Your task to perform on an android device: Check the weather Image 0: 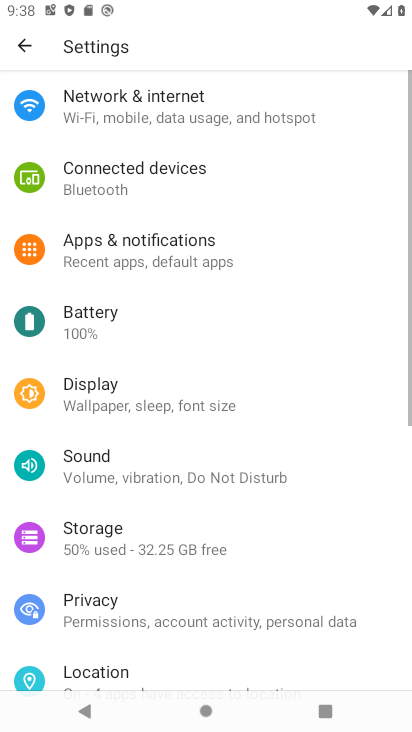
Step 0: press home button
Your task to perform on an android device: Check the weather Image 1: 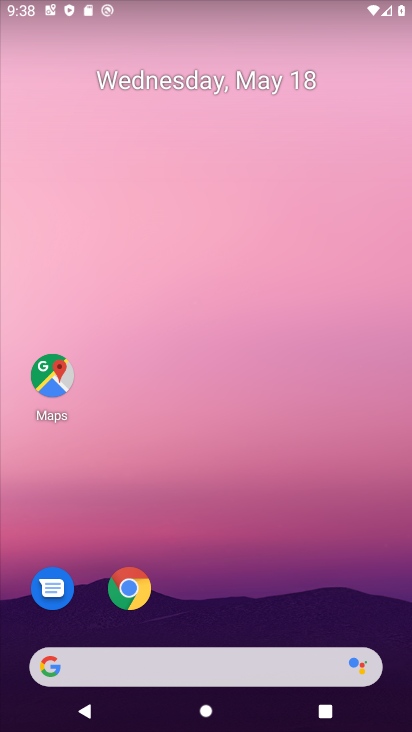
Step 1: drag from (249, 678) to (300, 158)
Your task to perform on an android device: Check the weather Image 2: 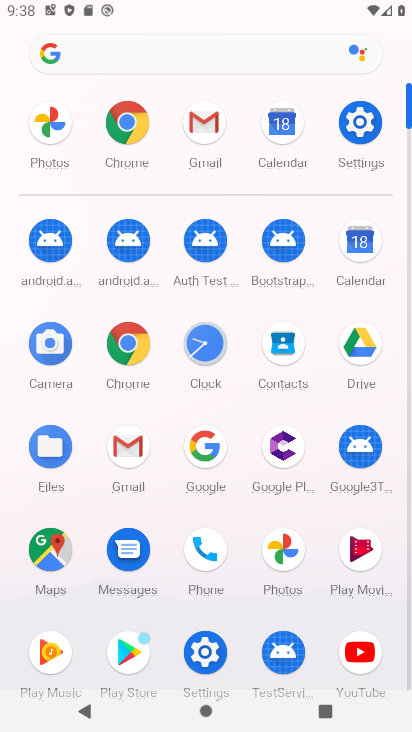
Step 2: click (356, 142)
Your task to perform on an android device: Check the weather Image 3: 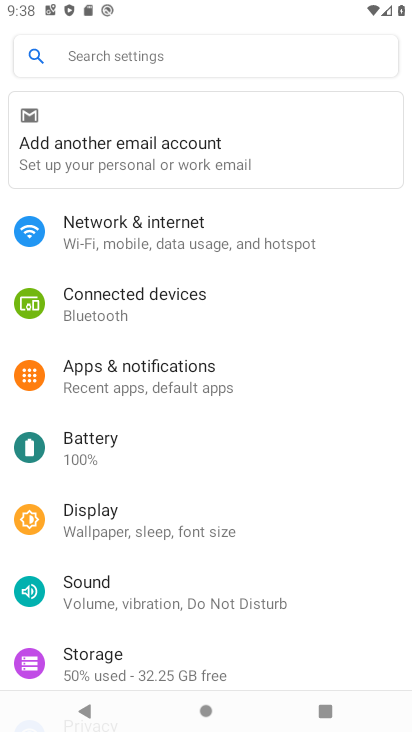
Step 3: click (154, 59)
Your task to perform on an android device: Check the weather Image 4: 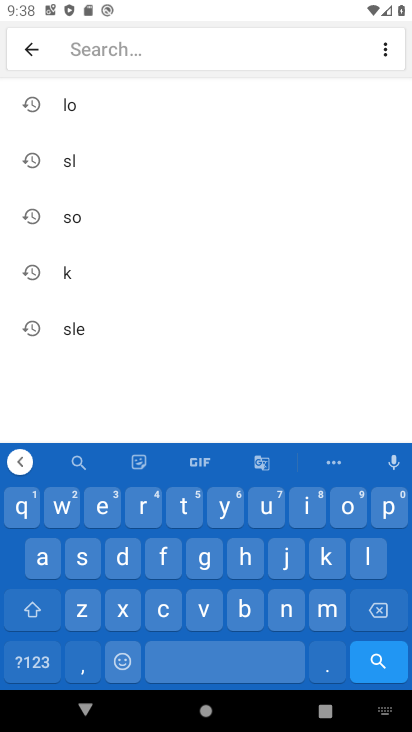
Step 4: press home button
Your task to perform on an android device: Check the weather Image 5: 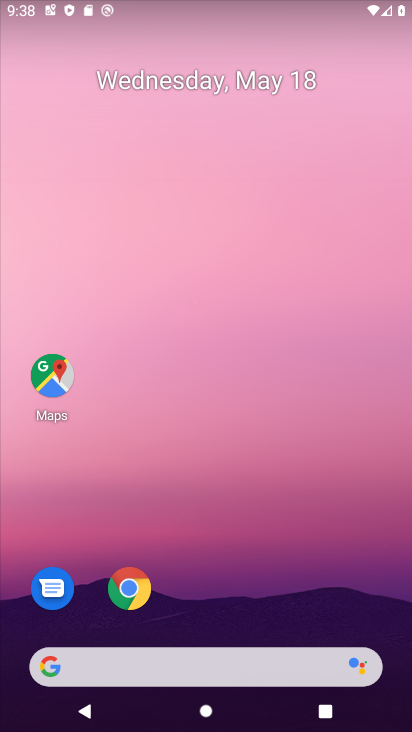
Step 5: click (161, 662)
Your task to perform on an android device: Check the weather Image 6: 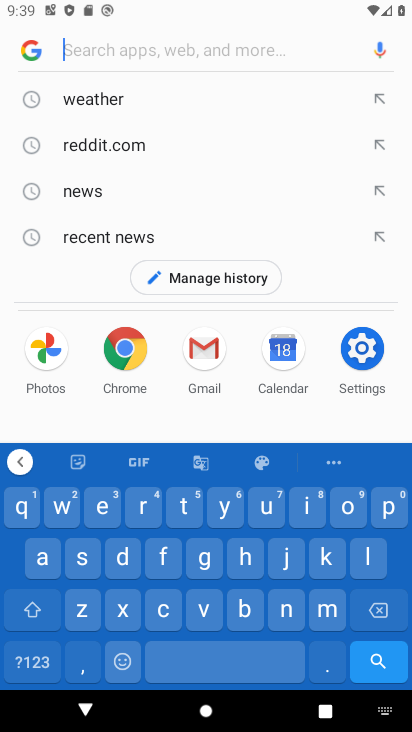
Step 6: click (93, 110)
Your task to perform on an android device: Check the weather Image 7: 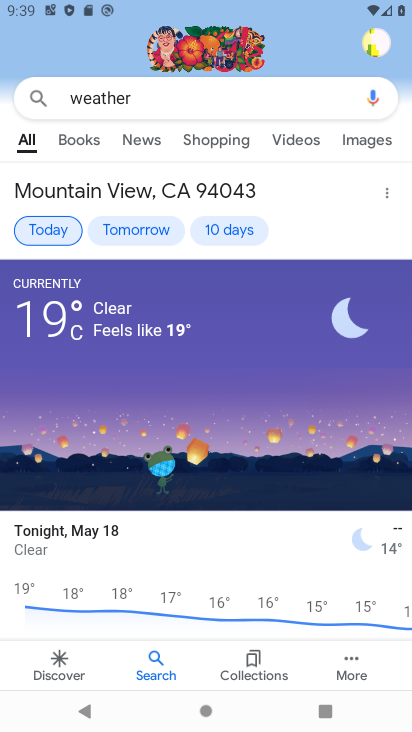
Step 7: task complete